Your task to perform on an android device: change text size in settings app Image 0: 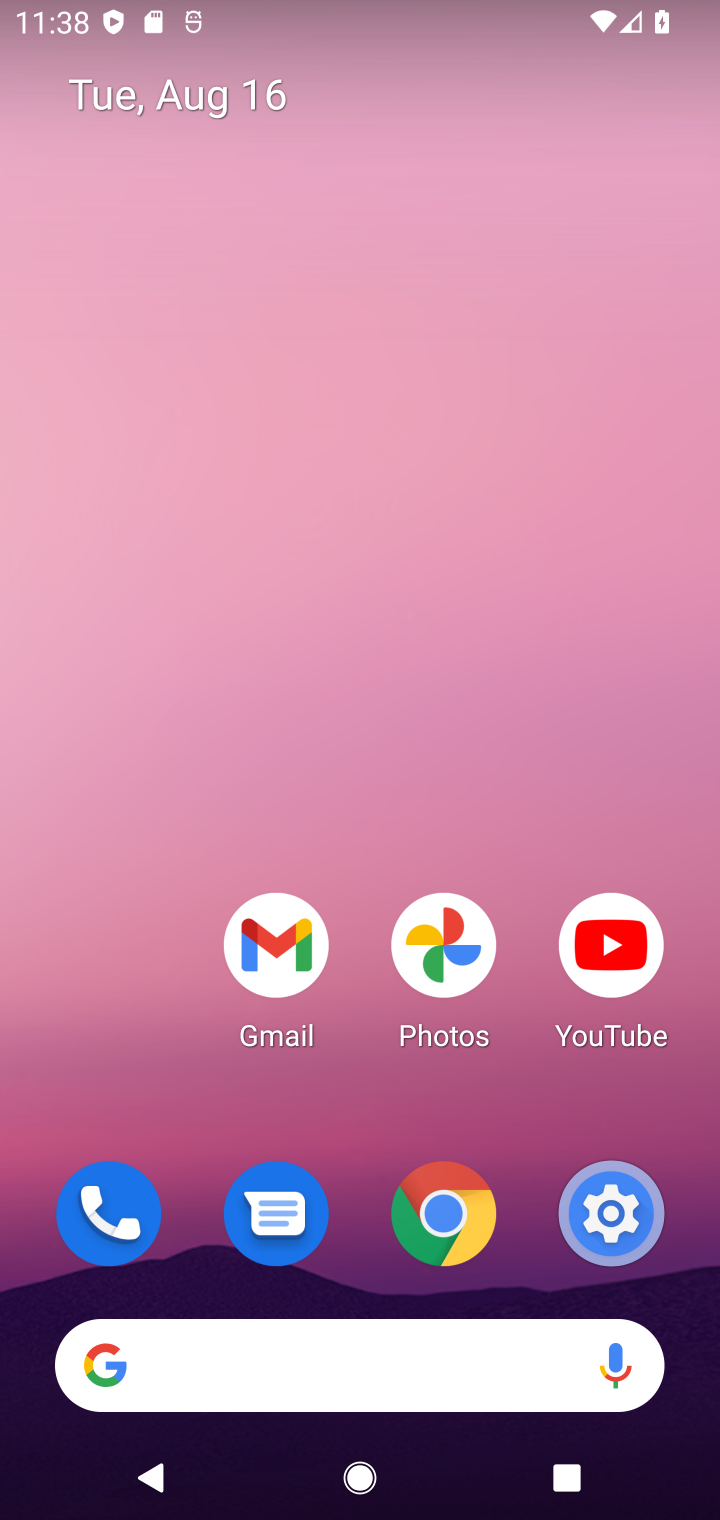
Step 0: drag from (357, 869) to (412, 82)
Your task to perform on an android device: change text size in settings app Image 1: 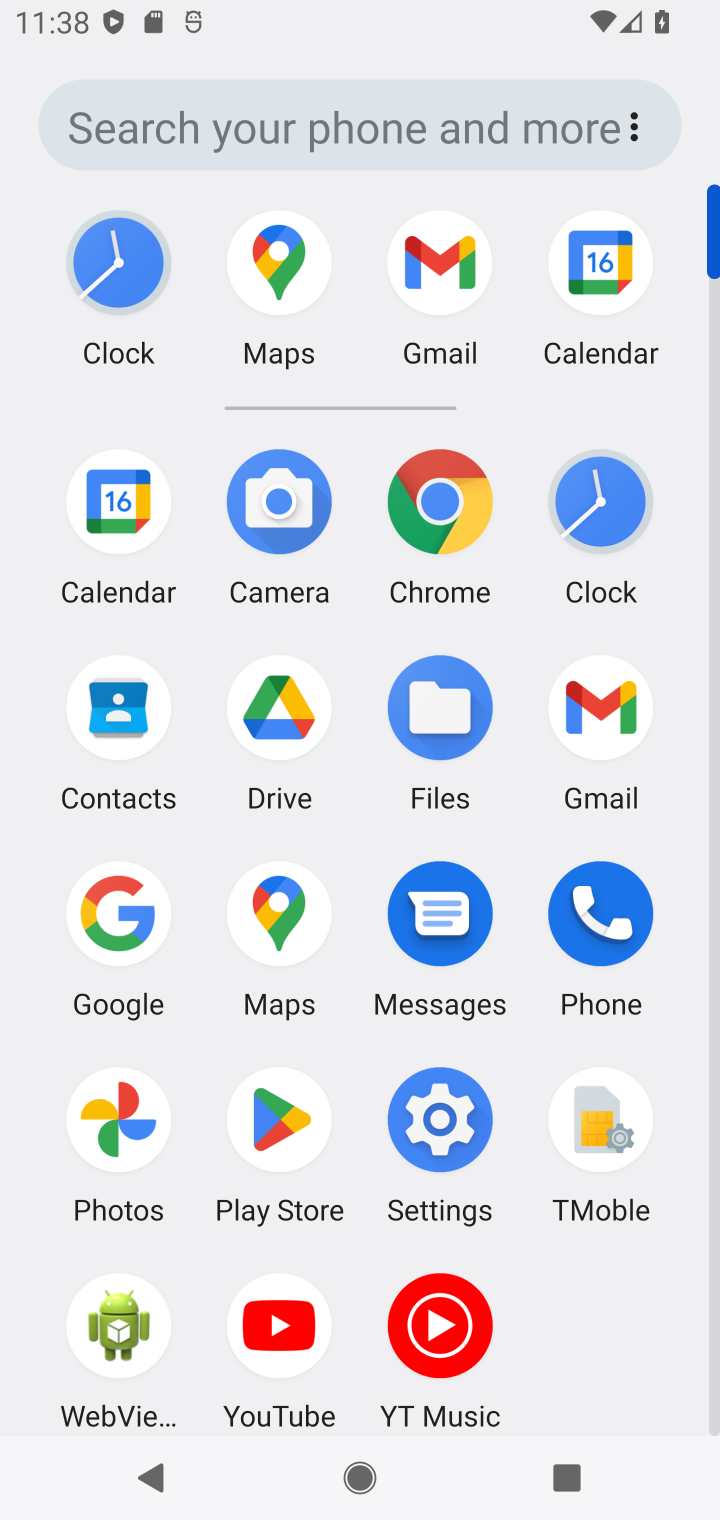
Step 1: click (451, 1136)
Your task to perform on an android device: change text size in settings app Image 2: 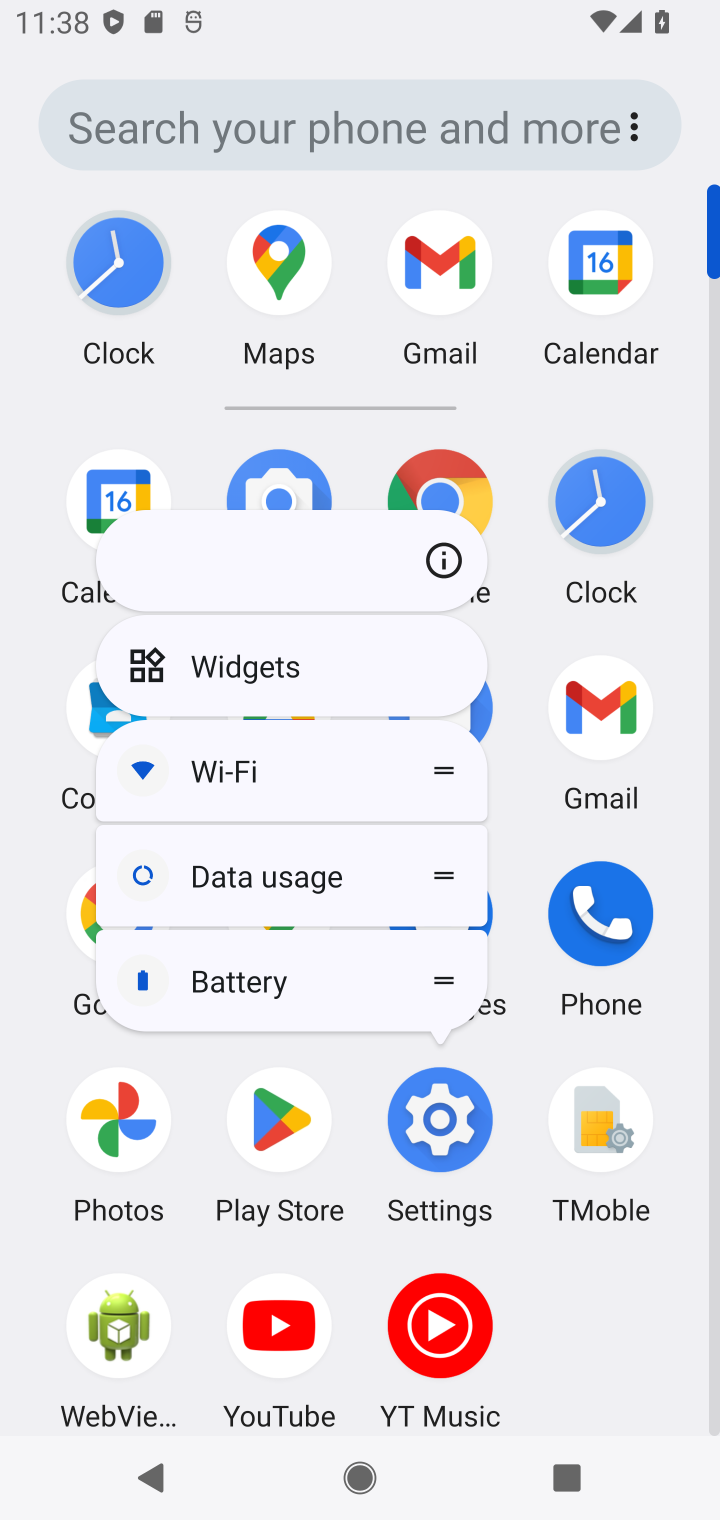
Step 2: click (439, 1123)
Your task to perform on an android device: change text size in settings app Image 3: 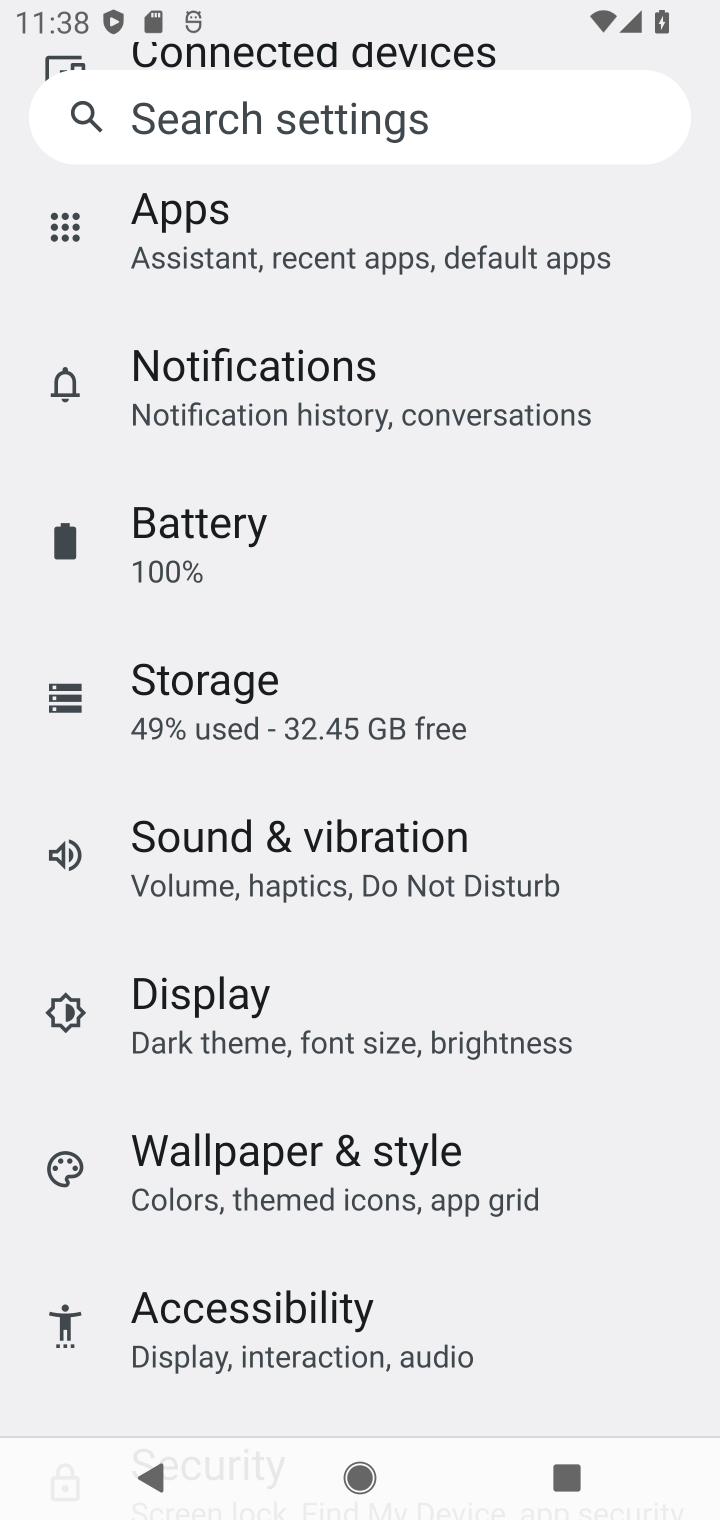
Step 3: drag from (462, 526) to (498, 597)
Your task to perform on an android device: change text size in settings app Image 4: 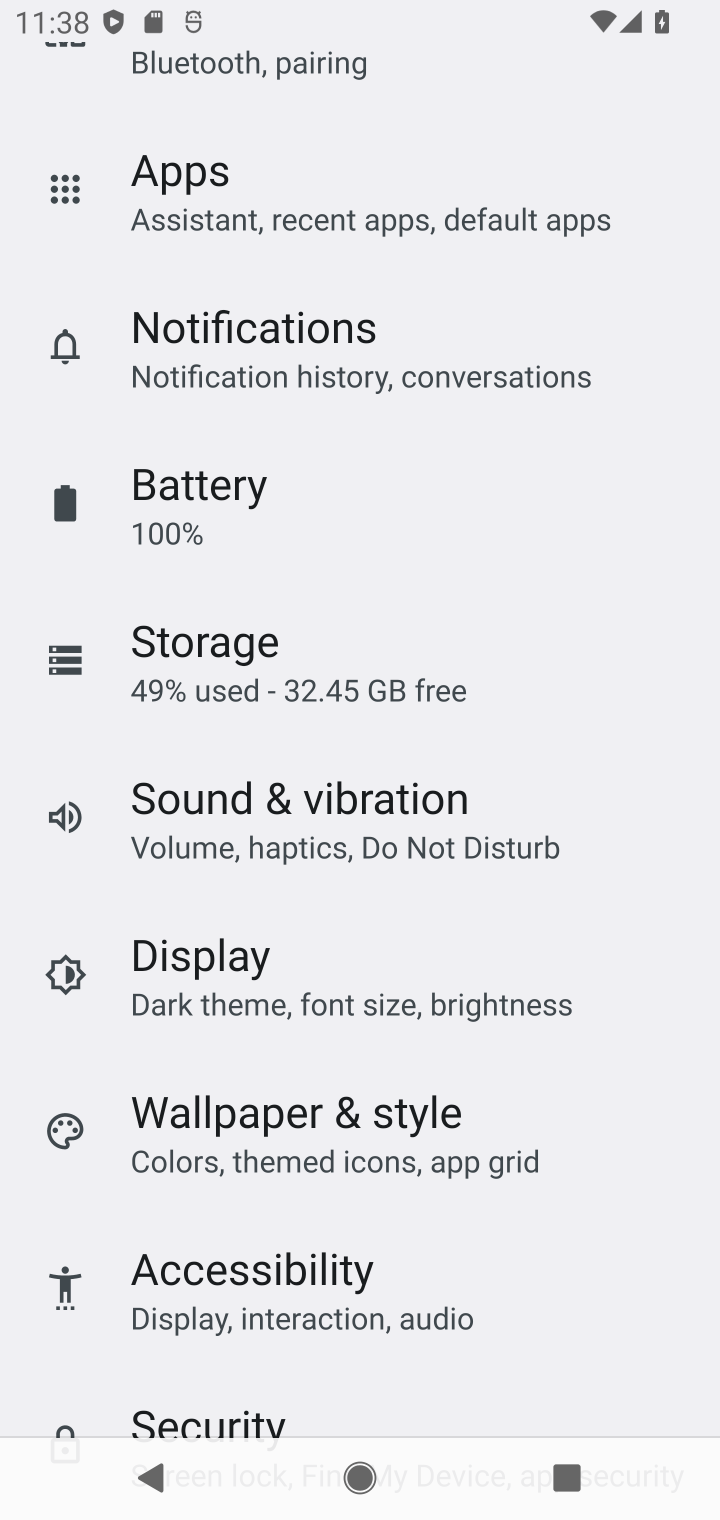
Step 4: click (225, 966)
Your task to perform on an android device: change text size in settings app Image 5: 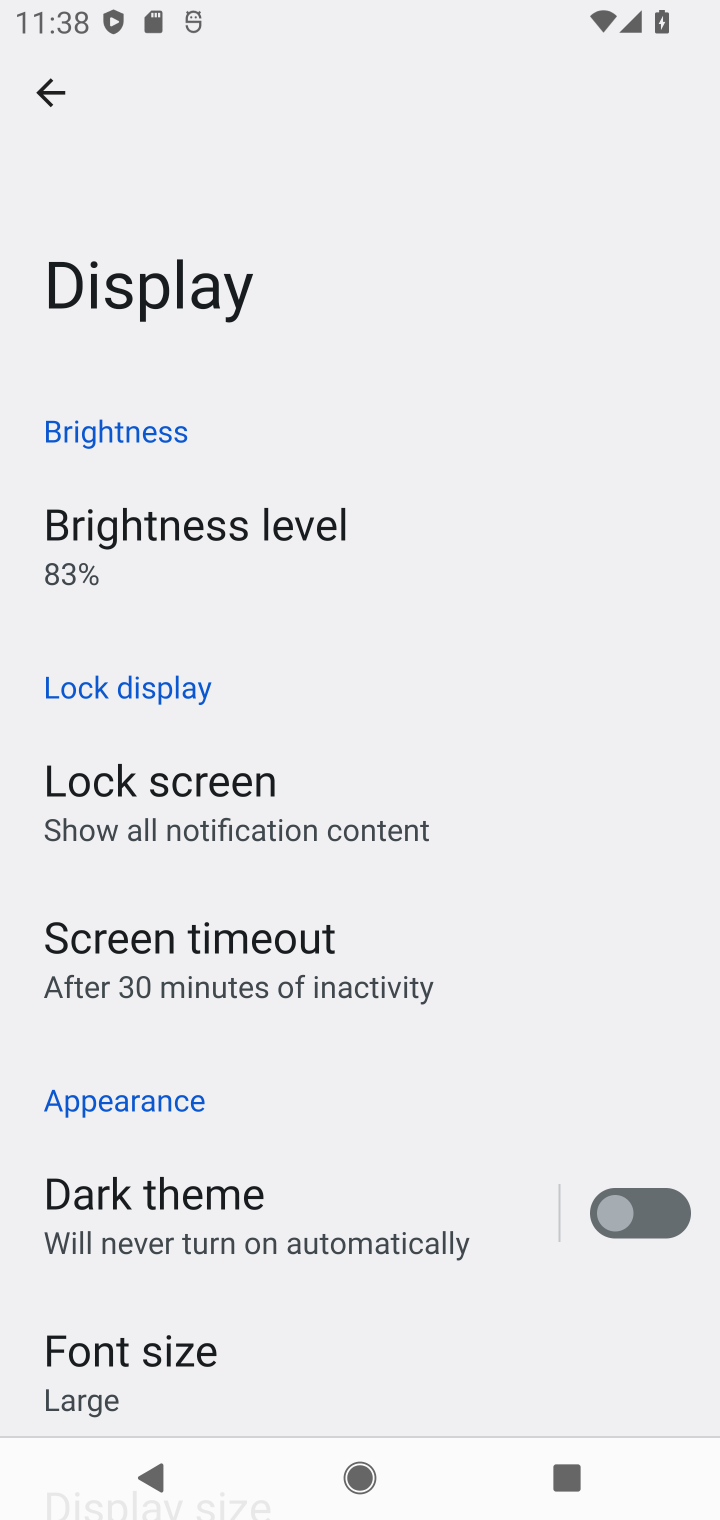
Step 5: click (184, 1348)
Your task to perform on an android device: change text size in settings app Image 6: 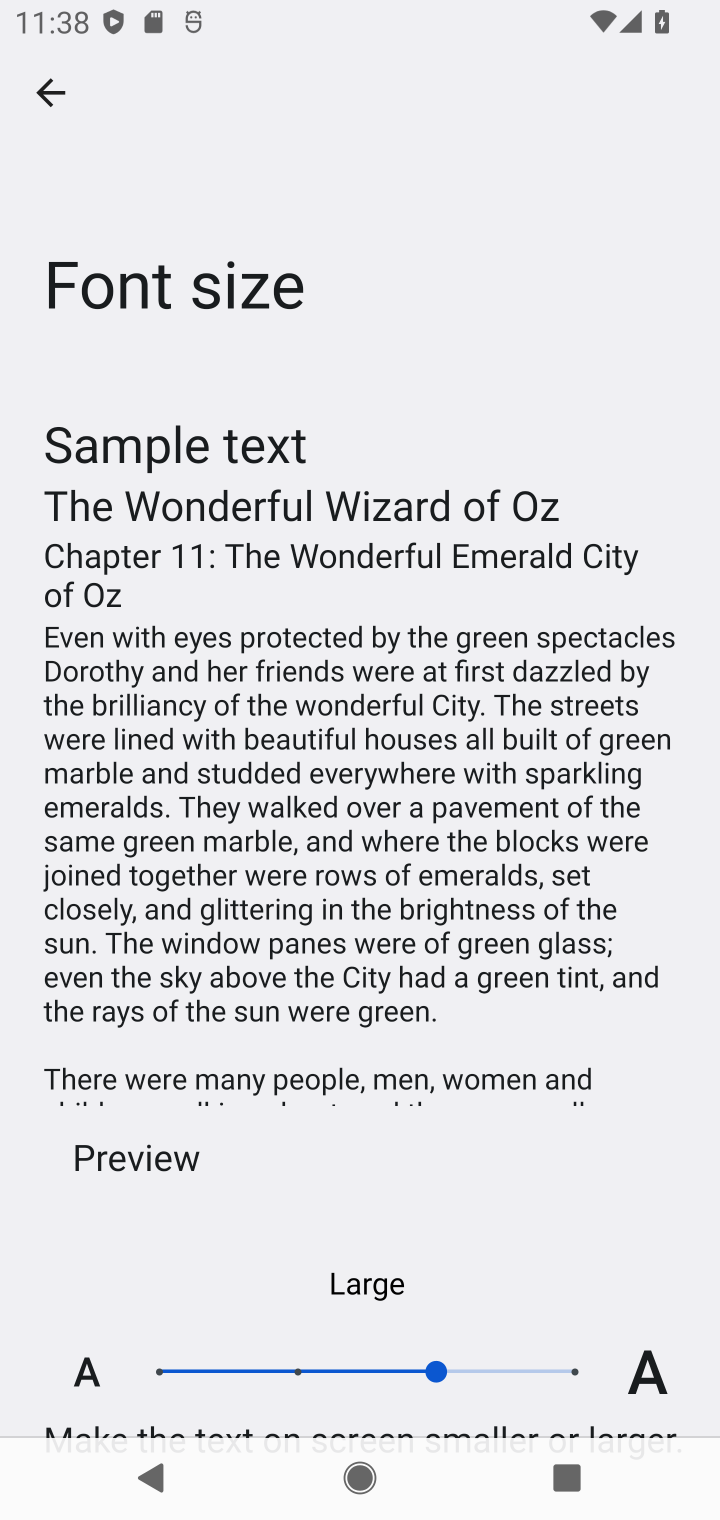
Step 6: click (295, 1365)
Your task to perform on an android device: change text size in settings app Image 7: 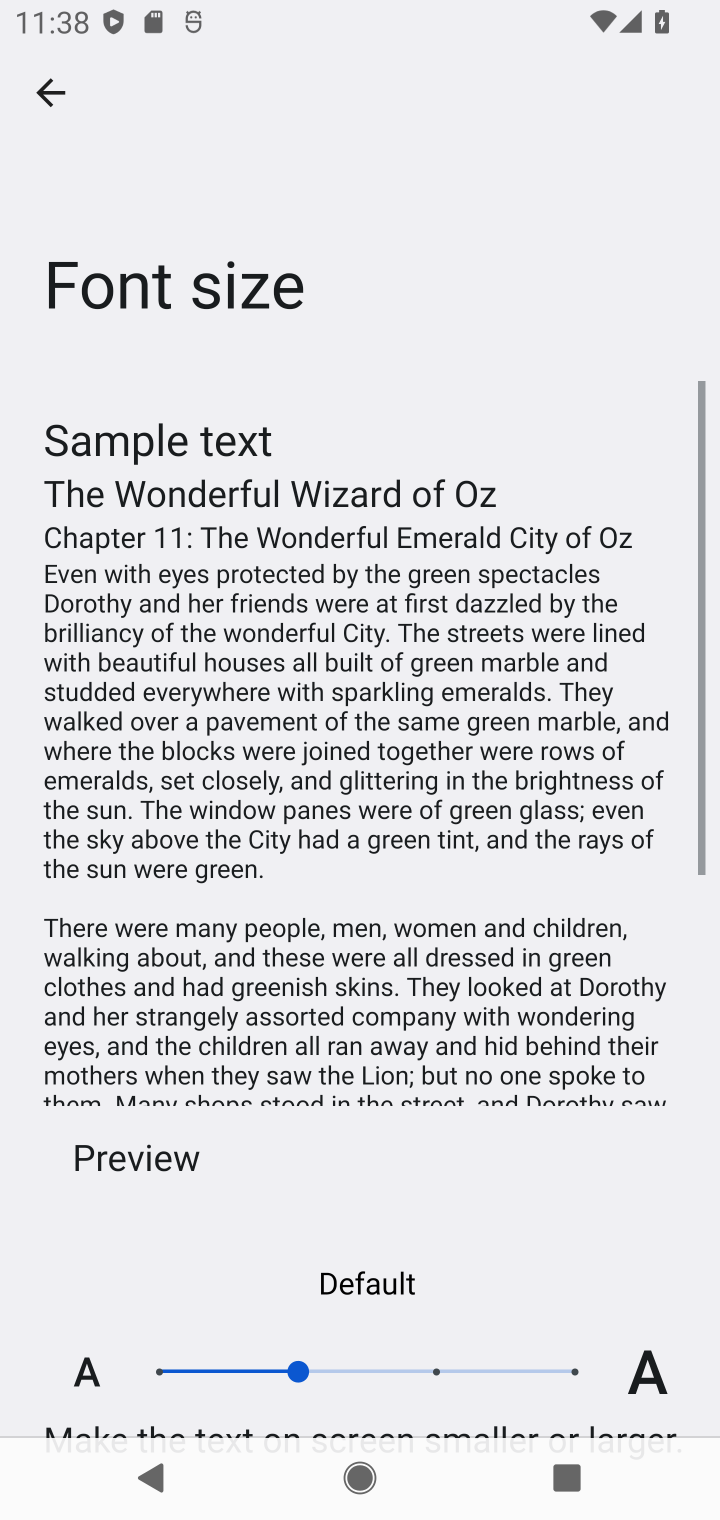
Step 7: task complete